Your task to perform on an android device: What's the news today? Image 0: 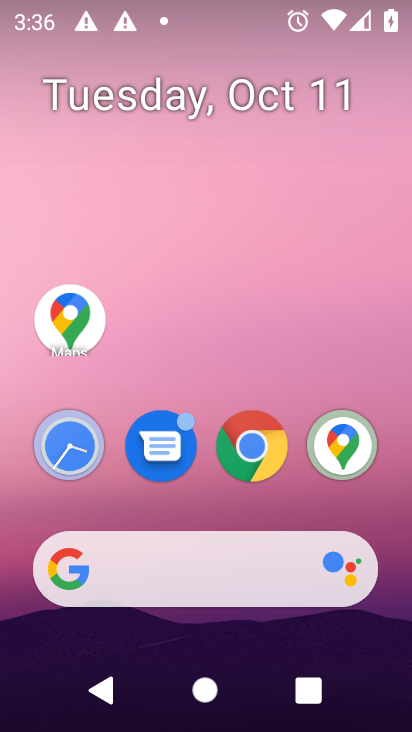
Step 0: click (250, 453)
Your task to perform on an android device: What's the news today? Image 1: 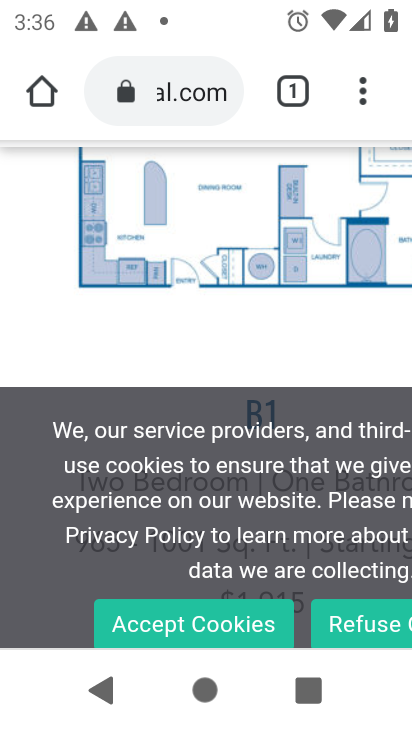
Step 1: click (182, 94)
Your task to perform on an android device: What's the news today? Image 2: 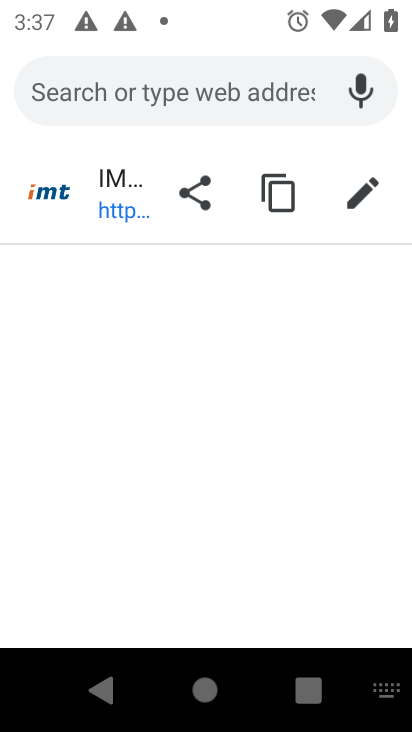
Step 2: type "news today"
Your task to perform on an android device: What's the news today? Image 3: 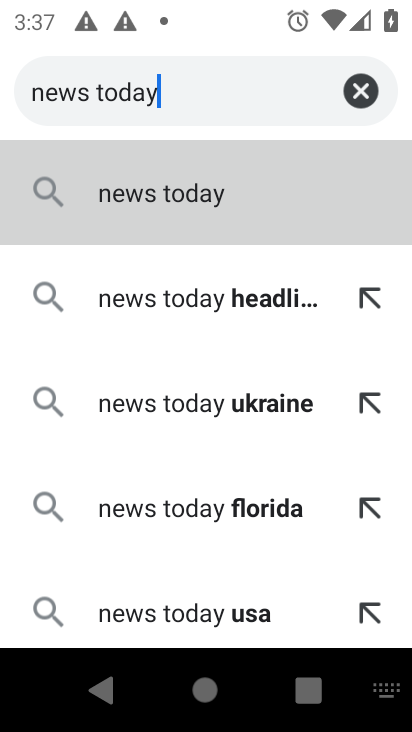
Step 3: click (173, 197)
Your task to perform on an android device: What's the news today? Image 4: 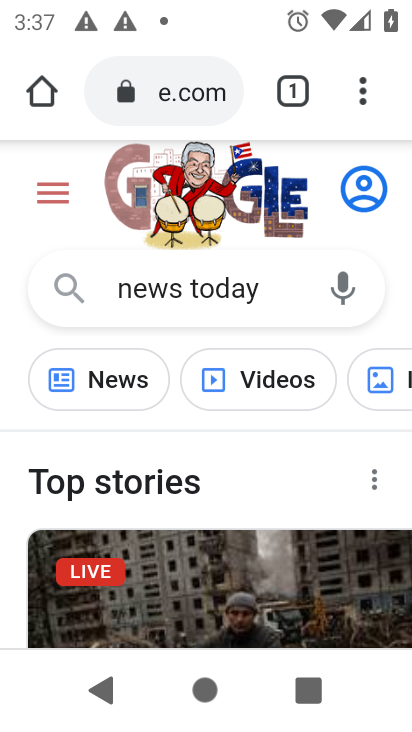
Step 4: drag from (253, 561) to (248, 332)
Your task to perform on an android device: What's the news today? Image 5: 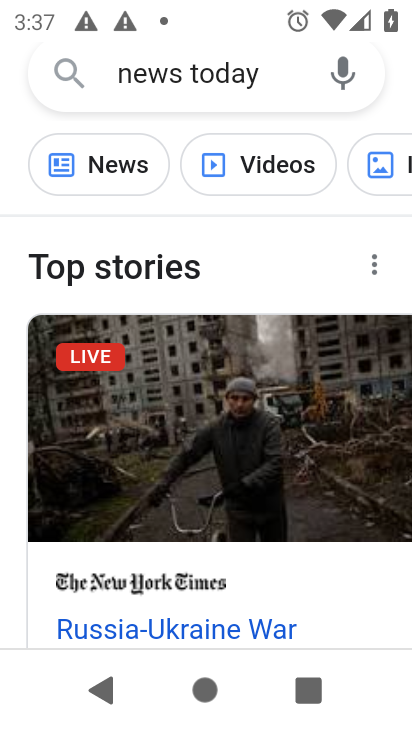
Step 5: drag from (205, 475) to (209, 306)
Your task to perform on an android device: What's the news today? Image 6: 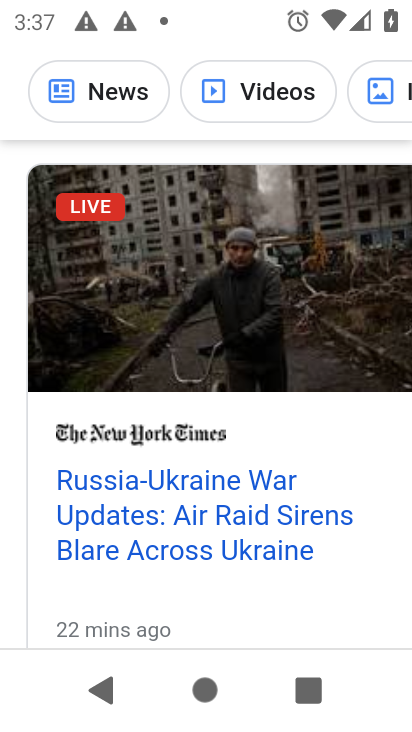
Step 6: drag from (189, 554) to (187, 227)
Your task to perform on an android device: What's the news today? Image 7: 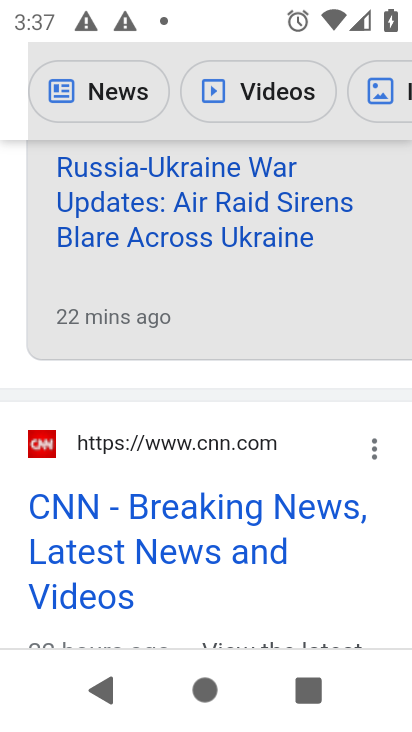
Step 7: drag from (170, 487) to (178, 217)
Your task to perform on an android device: What's the news today? Image 8: 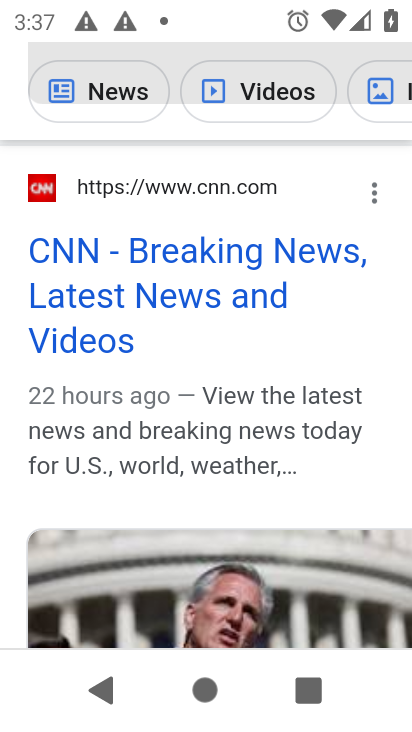
Step 8: drag from (192, 253) to (193, 510)
Your task to perform on an android device: What's the news today? Image 9: 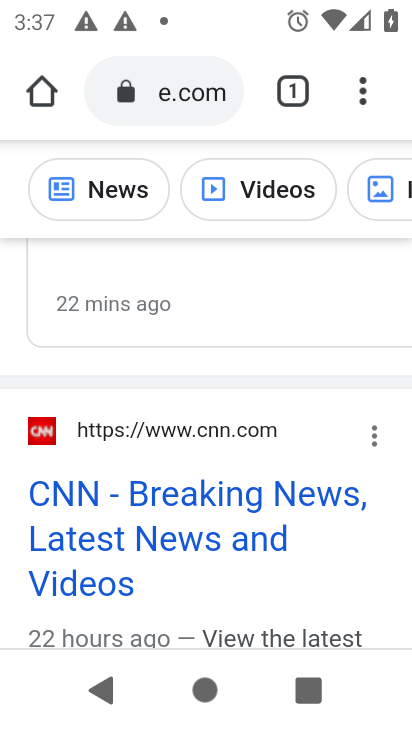
Step 9: drag from (226, 334) to (201, 599)
Your task to perform on an android device: What's the news today? Image 10: 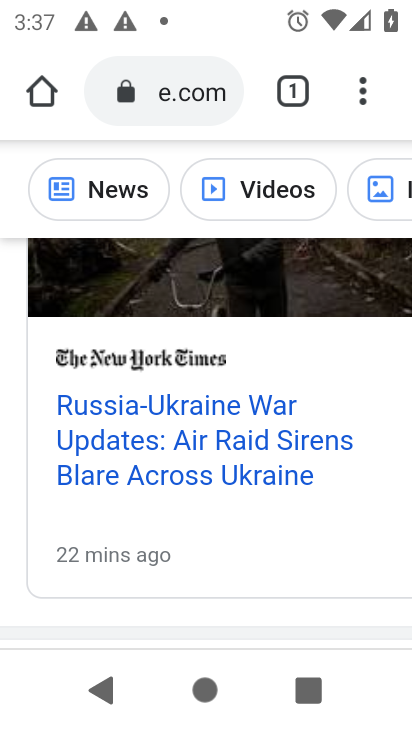
Step 10: drag from (219, 344) to (219, 472)
Your task to perform on an android device: What's the news today? Image 11: 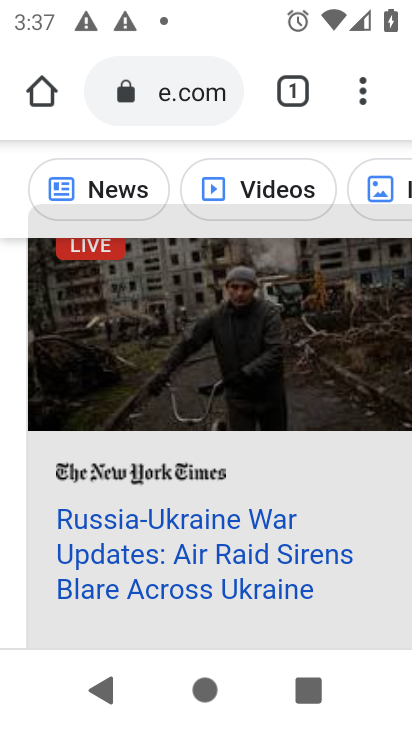
Step 11: click (199, 542)
Your task to perform on an android device: What's the news today? Image 12: 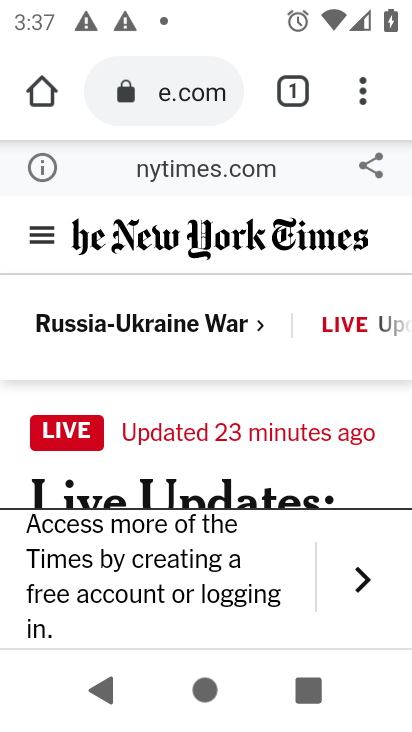
Step 12: task complete